Your task to perform on an android device: What's the weather? Image 0: 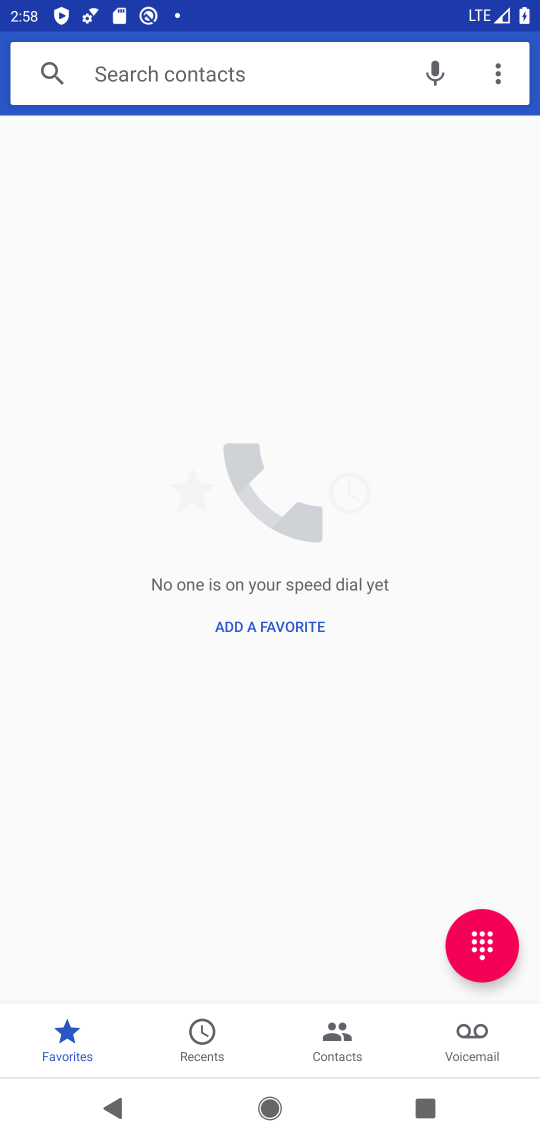
Step 0: press home button
Your task to perform on an android device: What's the weather? Image 1: 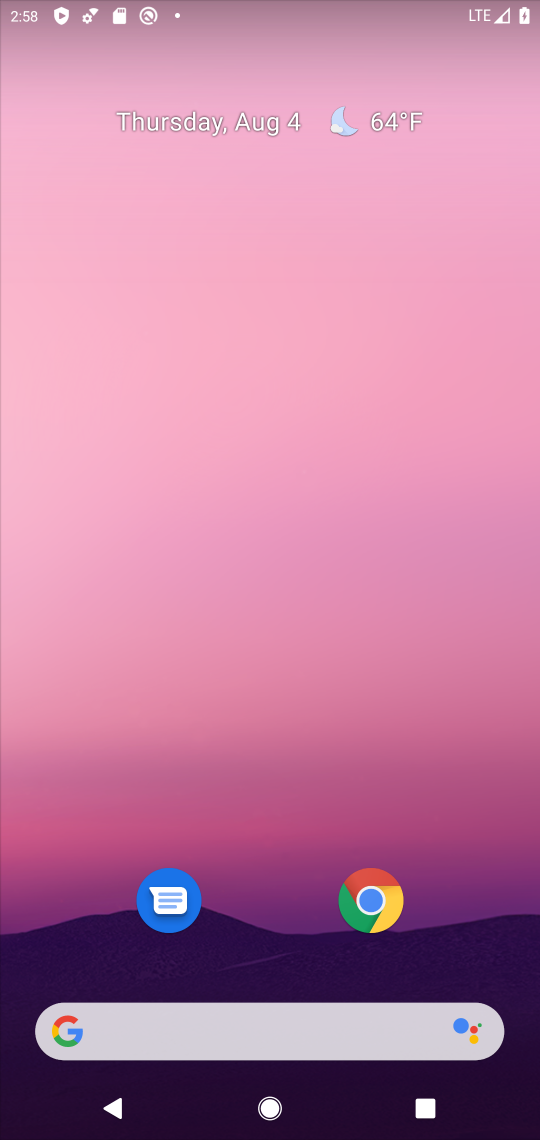
Step 1: click (382, 898)
Your task to perform on an android device: What's the weather? Image 2: 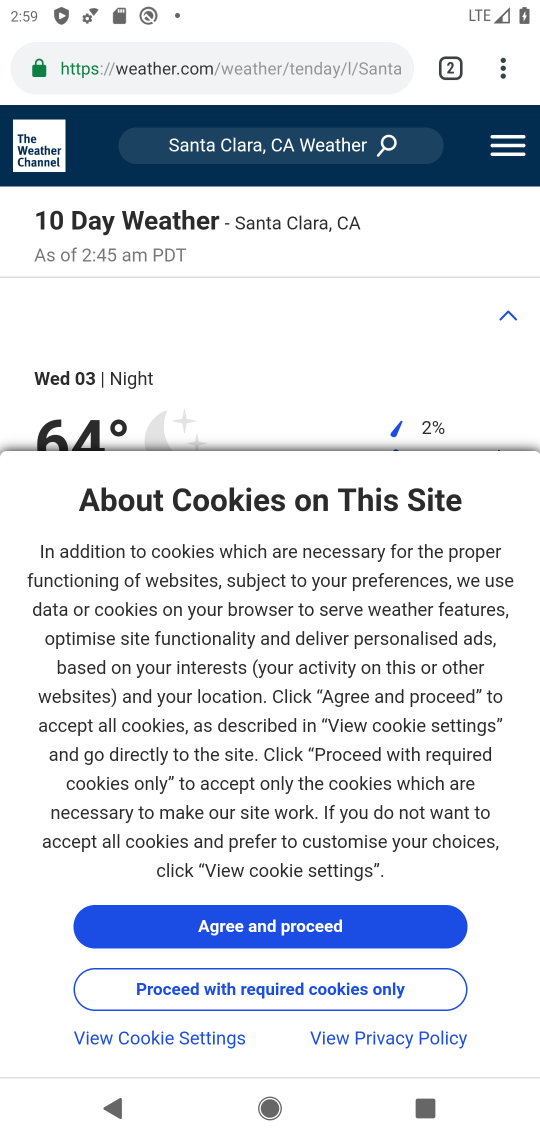
Step 2: click (235, 42)
Your task to perform on an android device: What's the weather? Image 3: 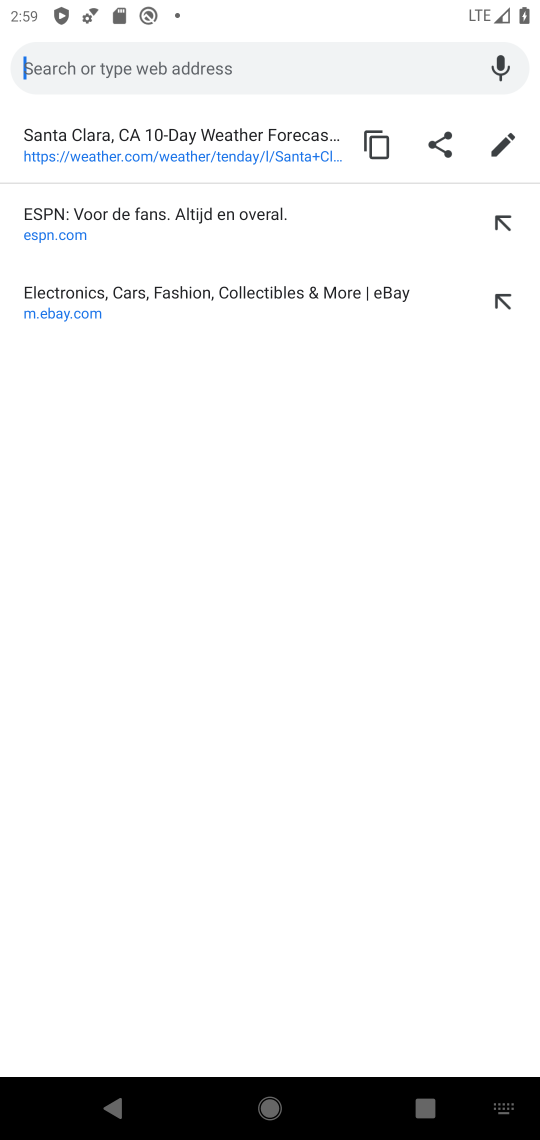
Step 3: type "What's the weather?"
Your task to perform on an android device: What's the weather? Image 4: 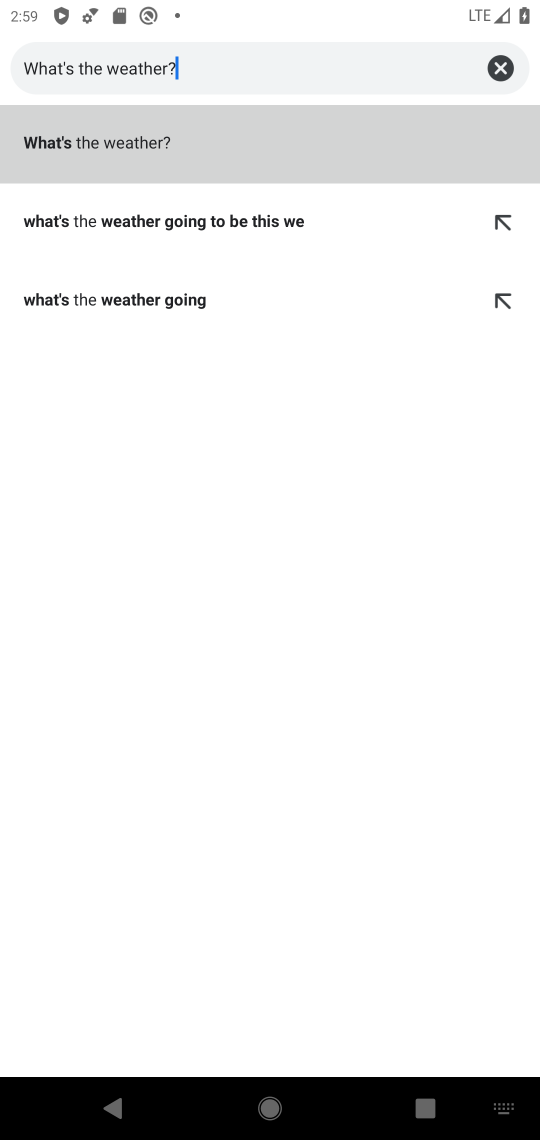
Step 4: click (384, 141)
Your task to perform on an android device: What's the weather? Image 5: 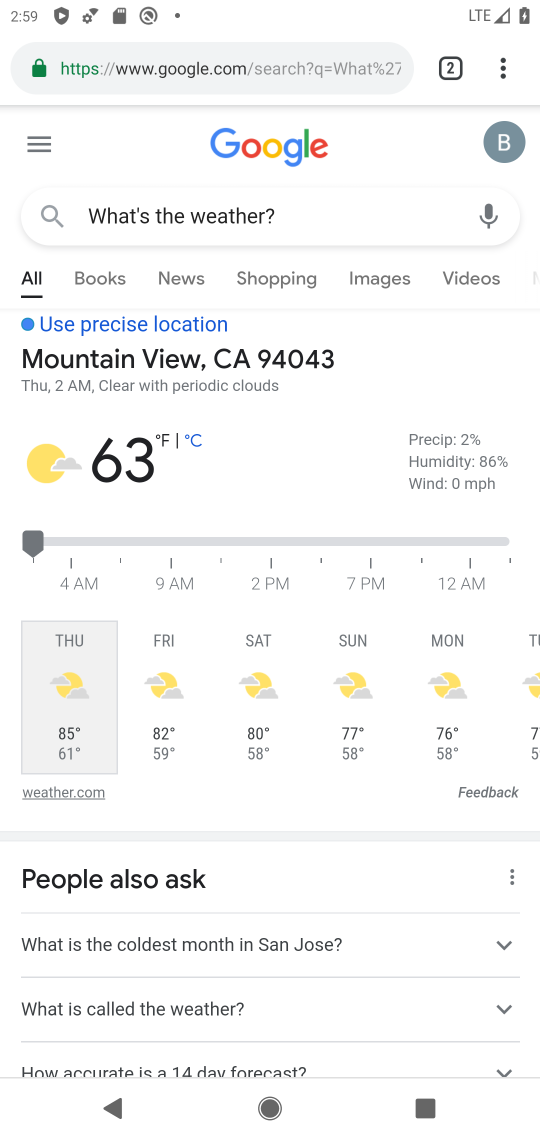
Step 5: task complete